Your task to perform on an android device: turn off sleep mode Image 0: 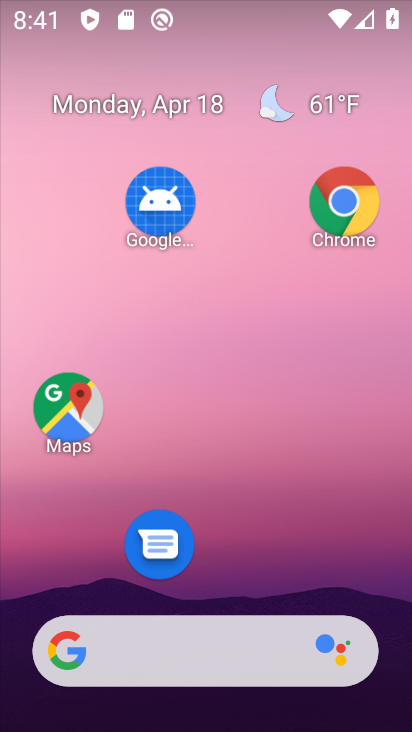
Step 0: drag from (240, 594) to (244, 19)
Your task to perform on an android device: turn off sleep mode Image 1: 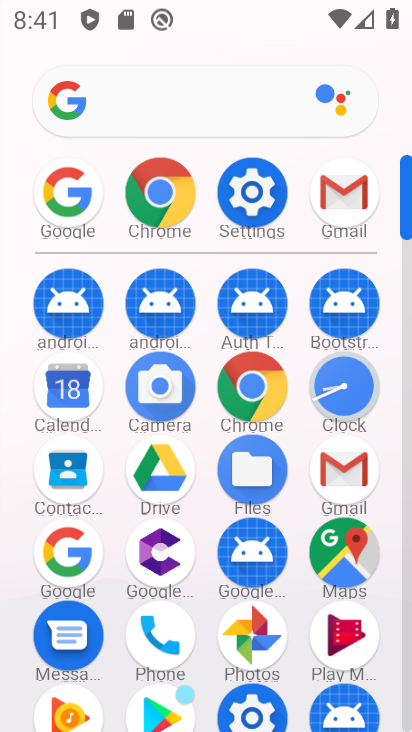
Step 1: click (256, 201)
Your task to perform on an android device: turn off sleep mode Image 2: 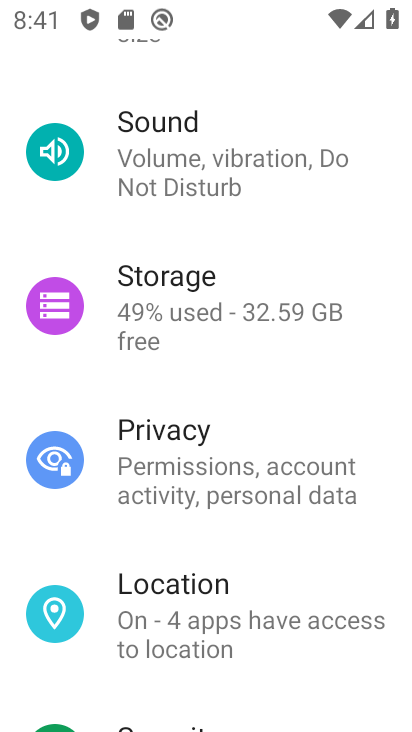
Step 2: drag from (214, 308) to (211, 645)
Your task to perform on an android device: turn off sleep mode Image 3: 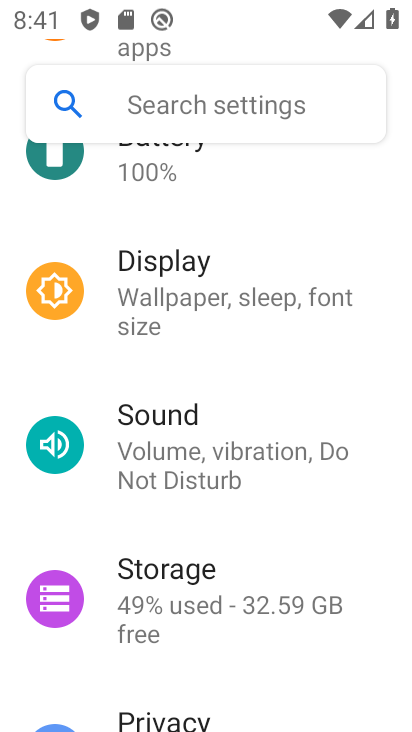
Step 3: click (231, 293)
Your task to perform on an android device: turn off sleep mode Image 4: 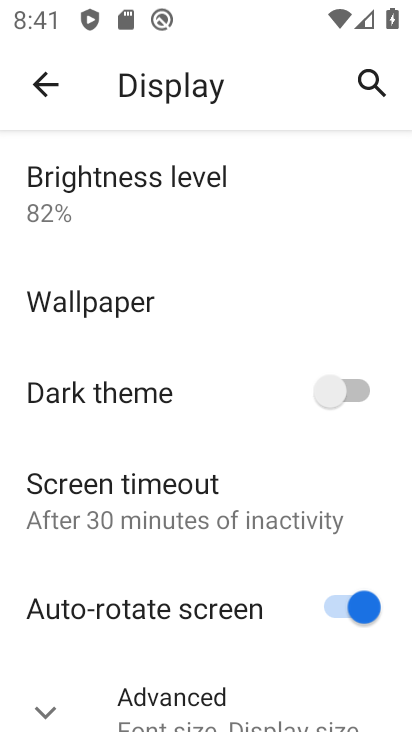
Step 4: click (217, 516)
Your task to perform on an android device: turn off sleep mode Image 5: 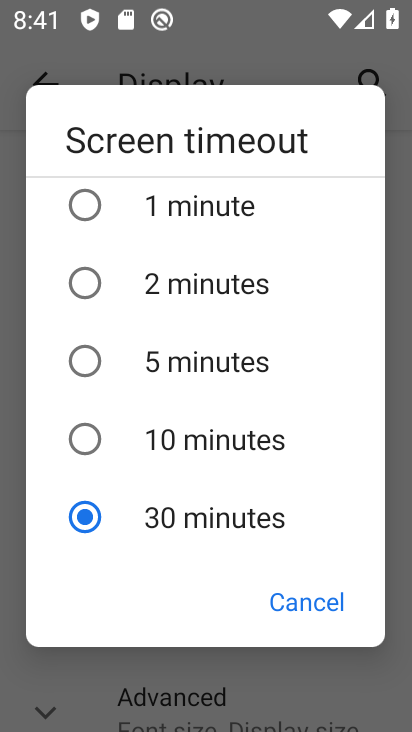
Step 5: task complete